Your task to perform on an android device: open app "Google Keep" Image 0: 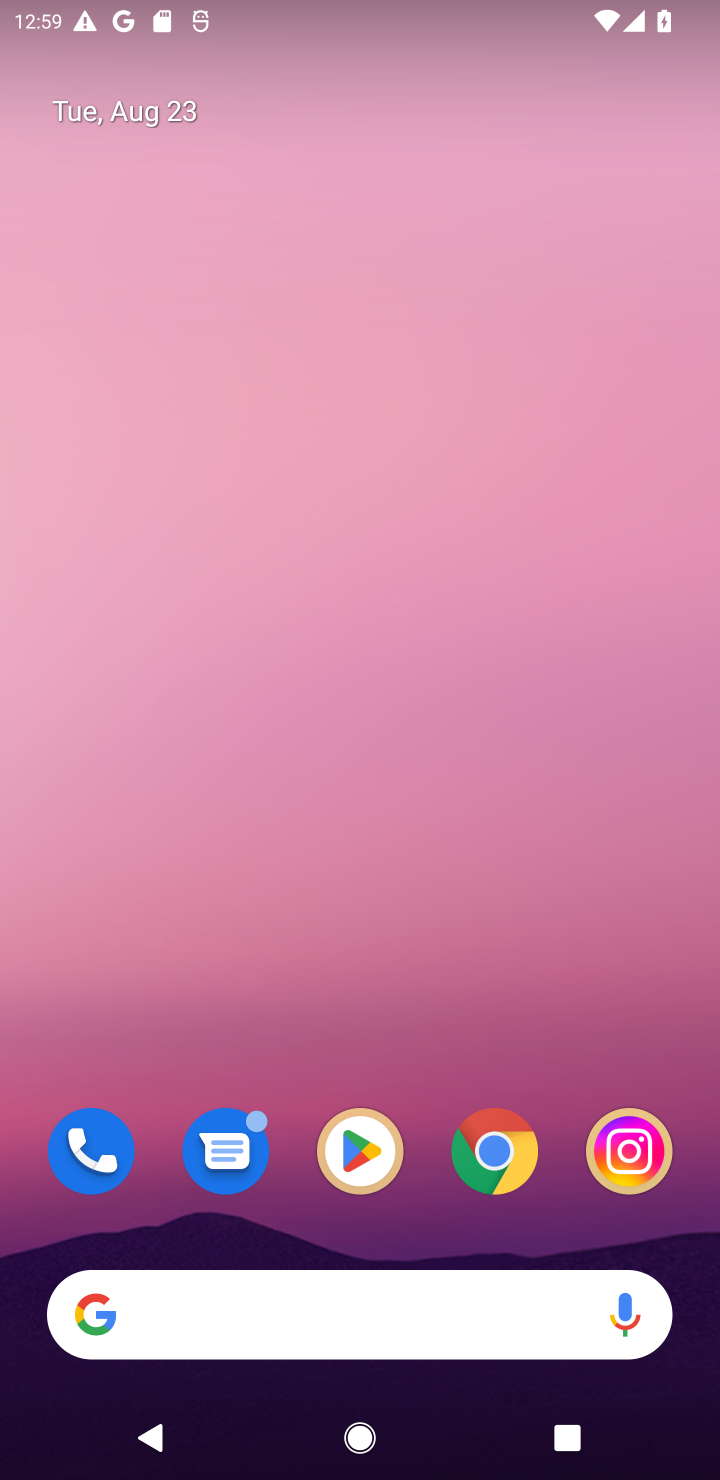
Step 0: click (351, 1166)
Your task to perform on an android device: open app "Google Keep" Image 1: 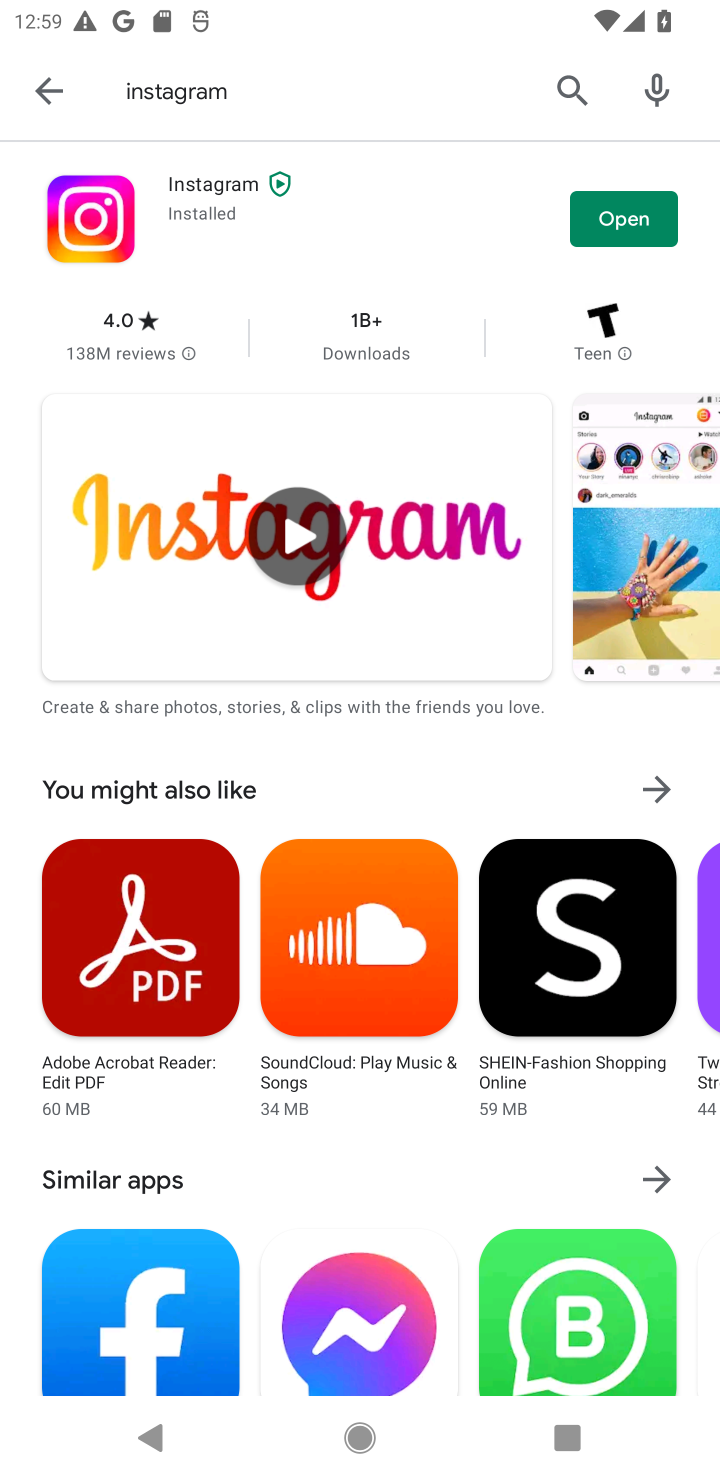
Step 1: click (571, 87)
Your task to perform on an android device: open app "Google Keep" Image 2: 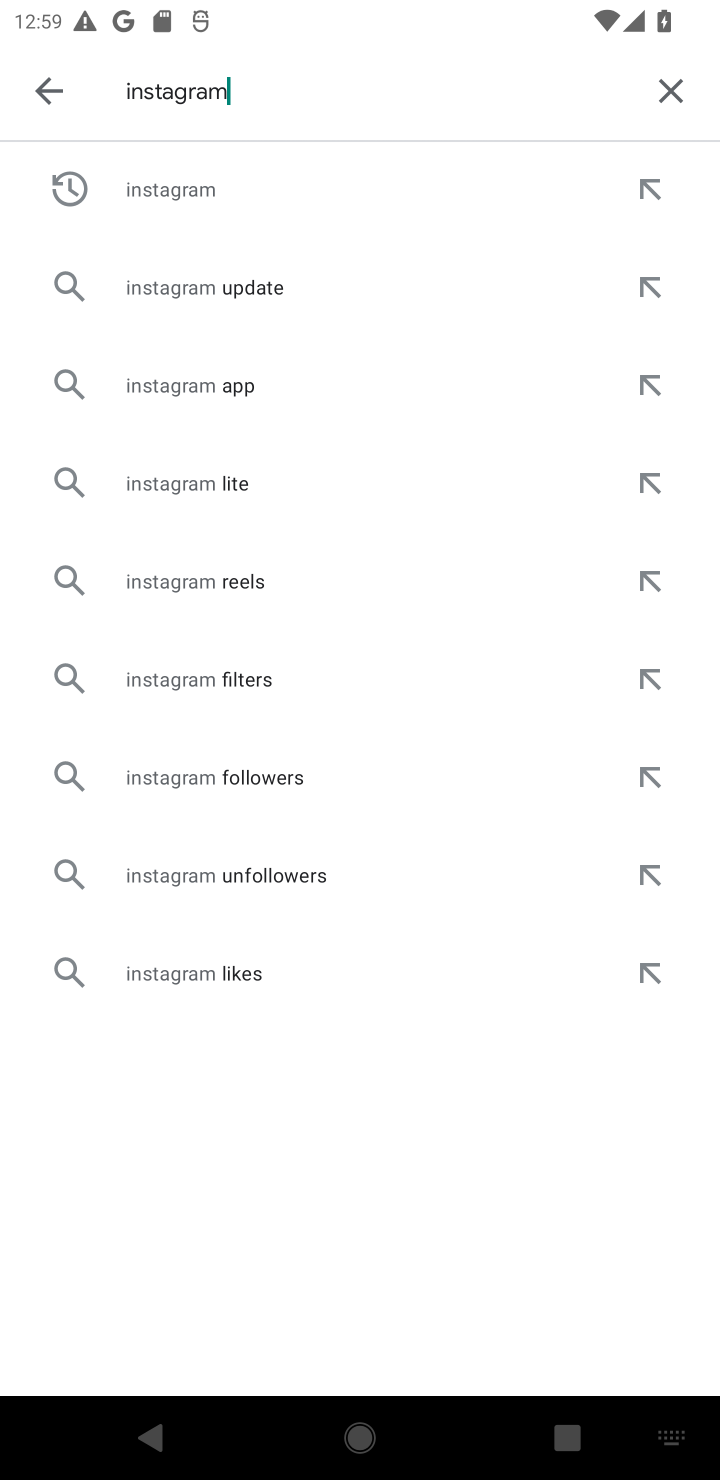
Step 2: click (663, 85)
Your task to perform on an android device: open app "Google Keep" Image 3: 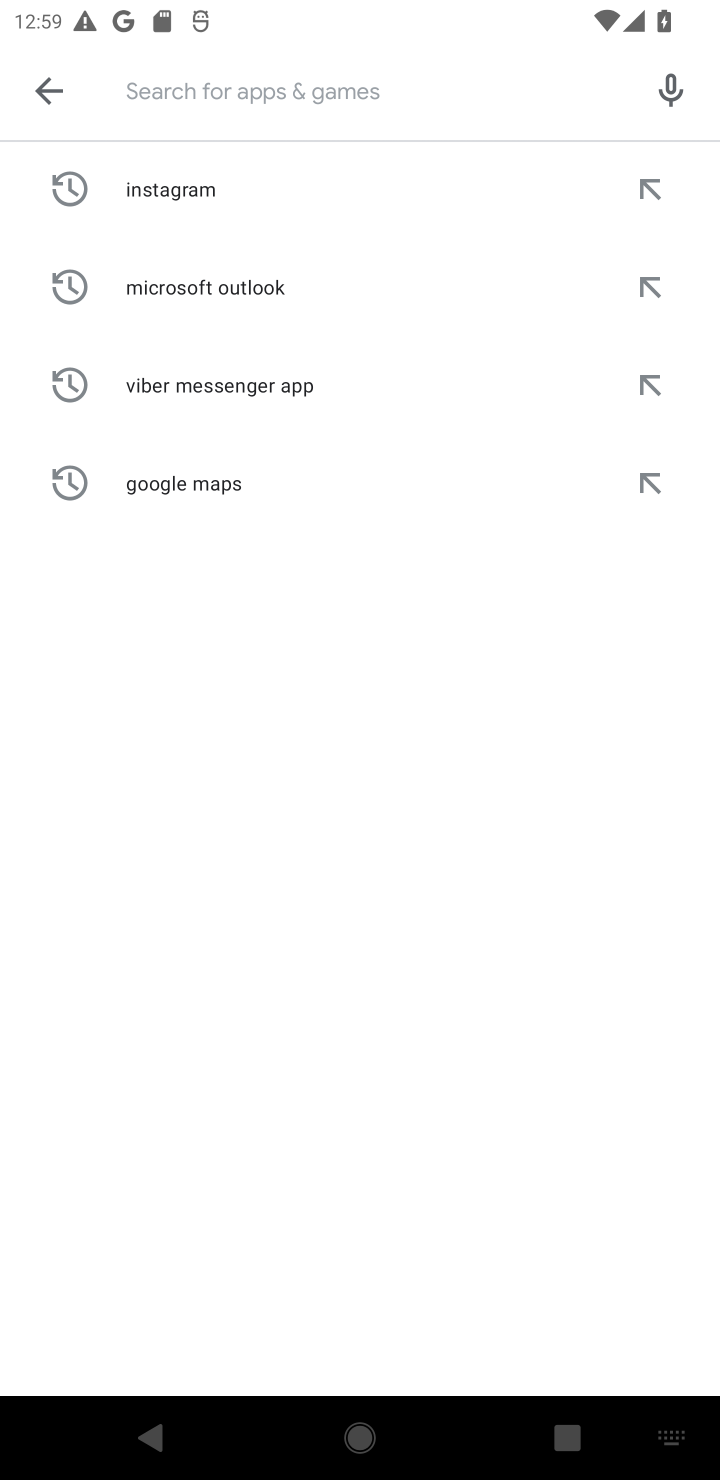
Step 3: type "Google Keep"
Your task to perform on an android device: open app "Google Keep" Image 4: 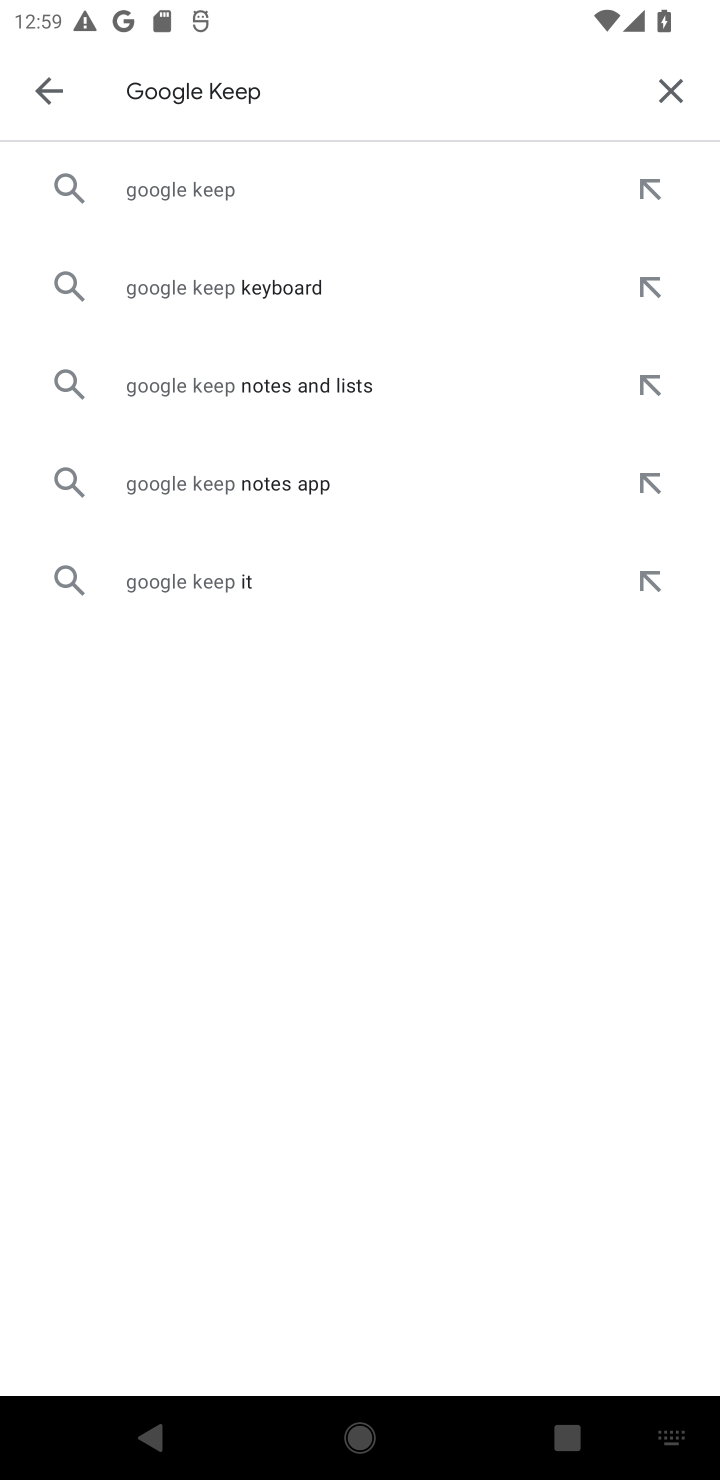
Step 4: click (284, 173)
Your task to perform on an android device: open app "Google Keep" Image 5: 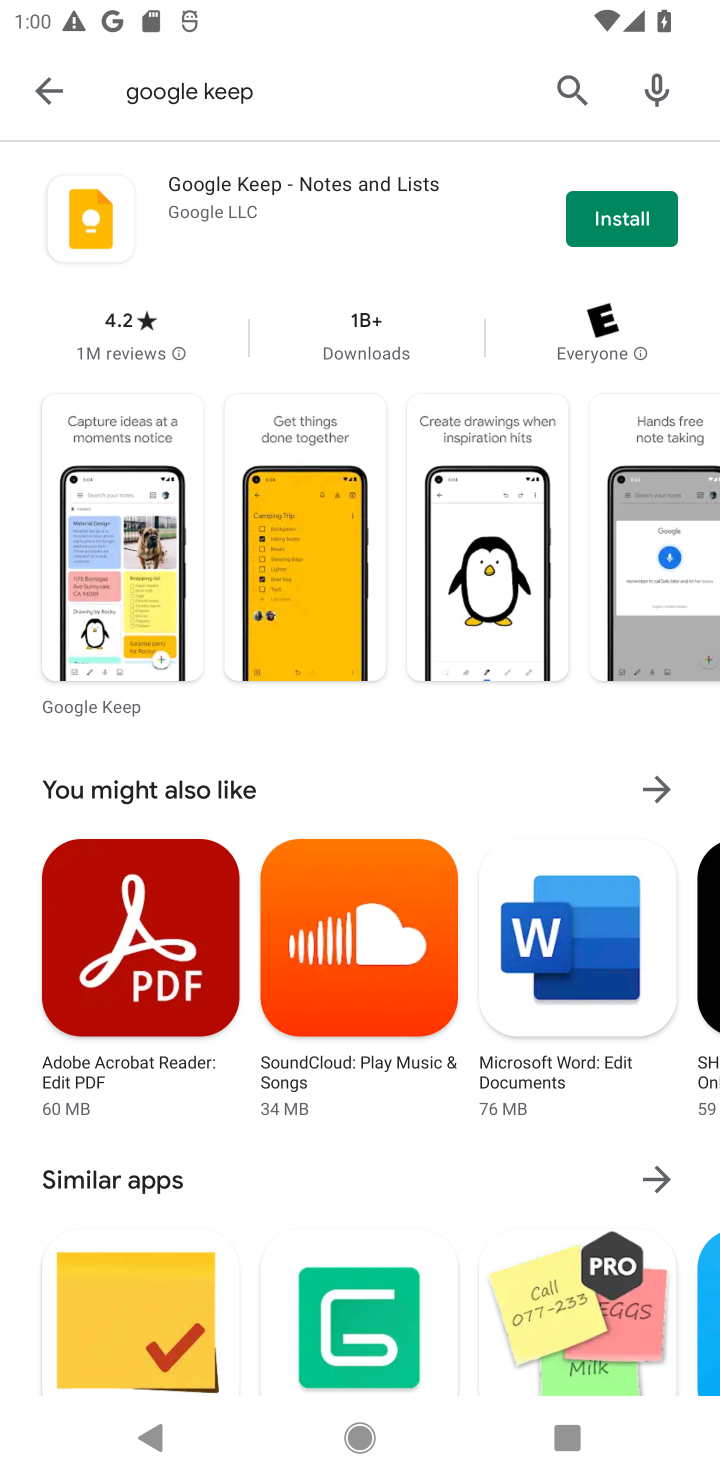
Step 5: task complete